Your task to perform on an android device: turn pop-ups off in chrome Image 0: 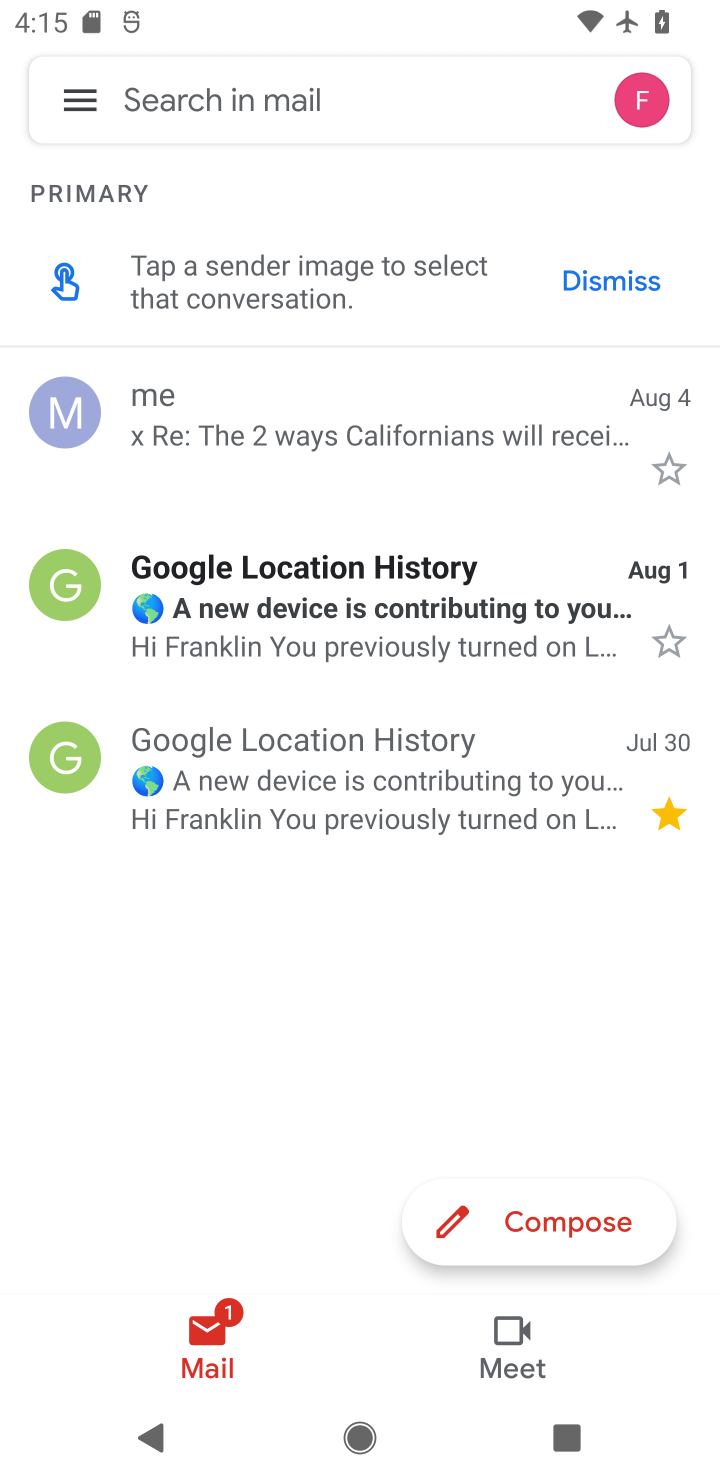
Step 0: press home button
Your task to perform on an android device: turn pop-ups off in chrome Image 1: 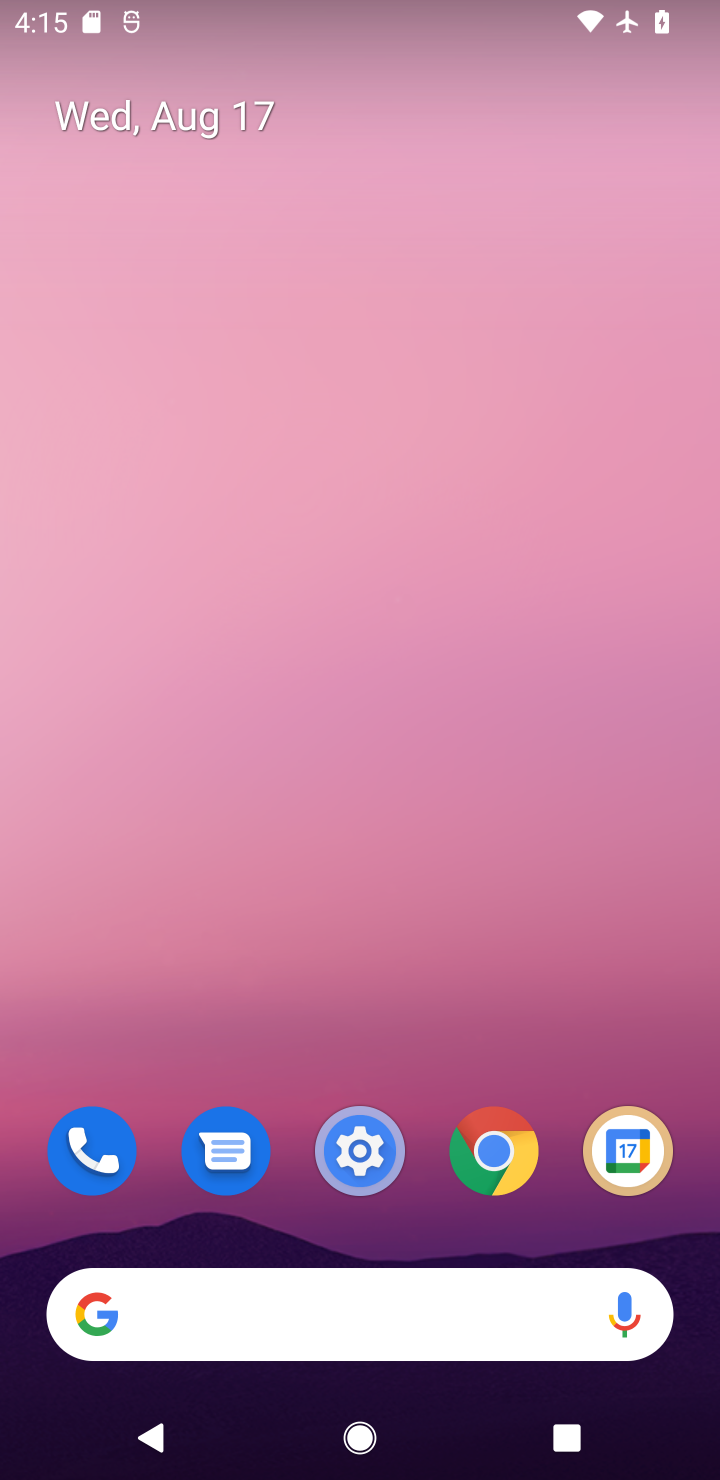
Step 1: drag from (512, 725) to (605, 53)
Your task to perform on an android device: turn pop-ups off in chrome Image 2: 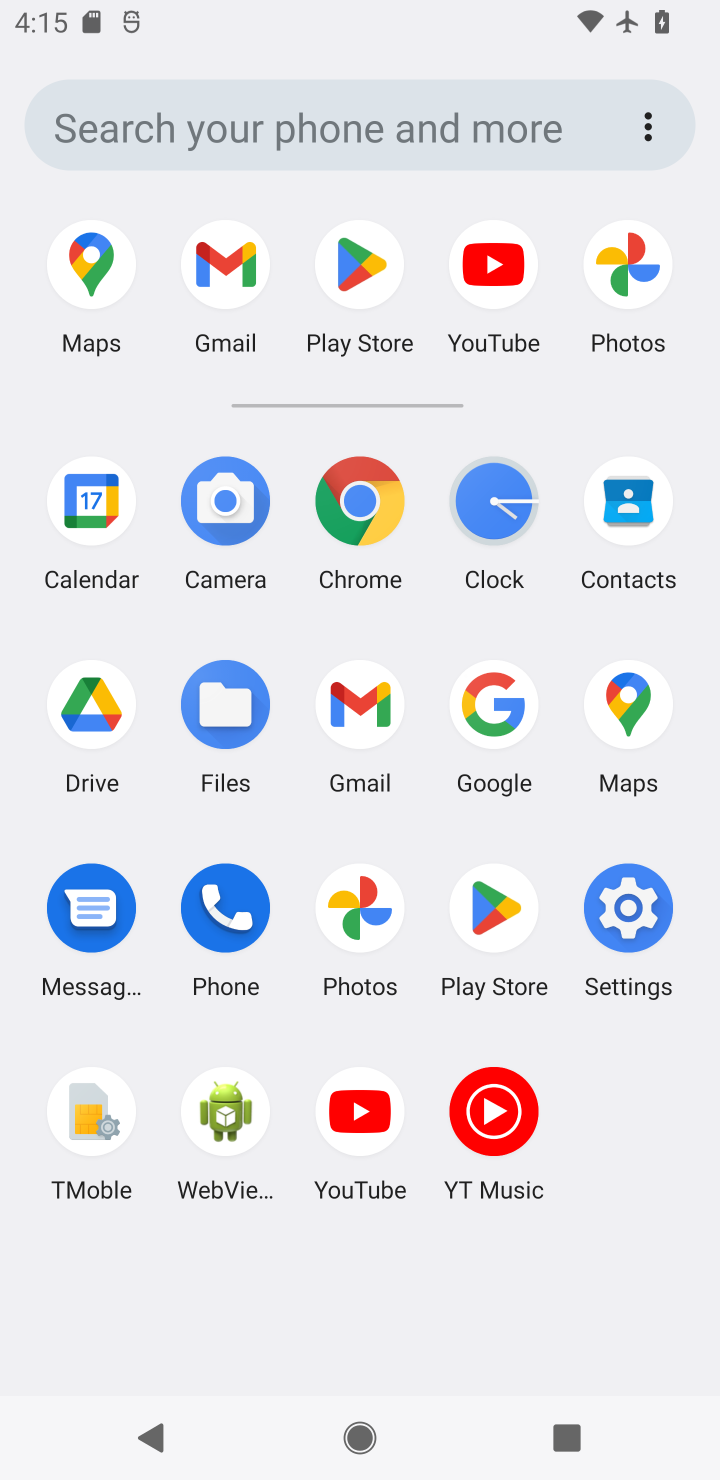
Step 2: click (380, 503)
Your task to perform on an android device: turn pop-ups off in chrome Image 3: 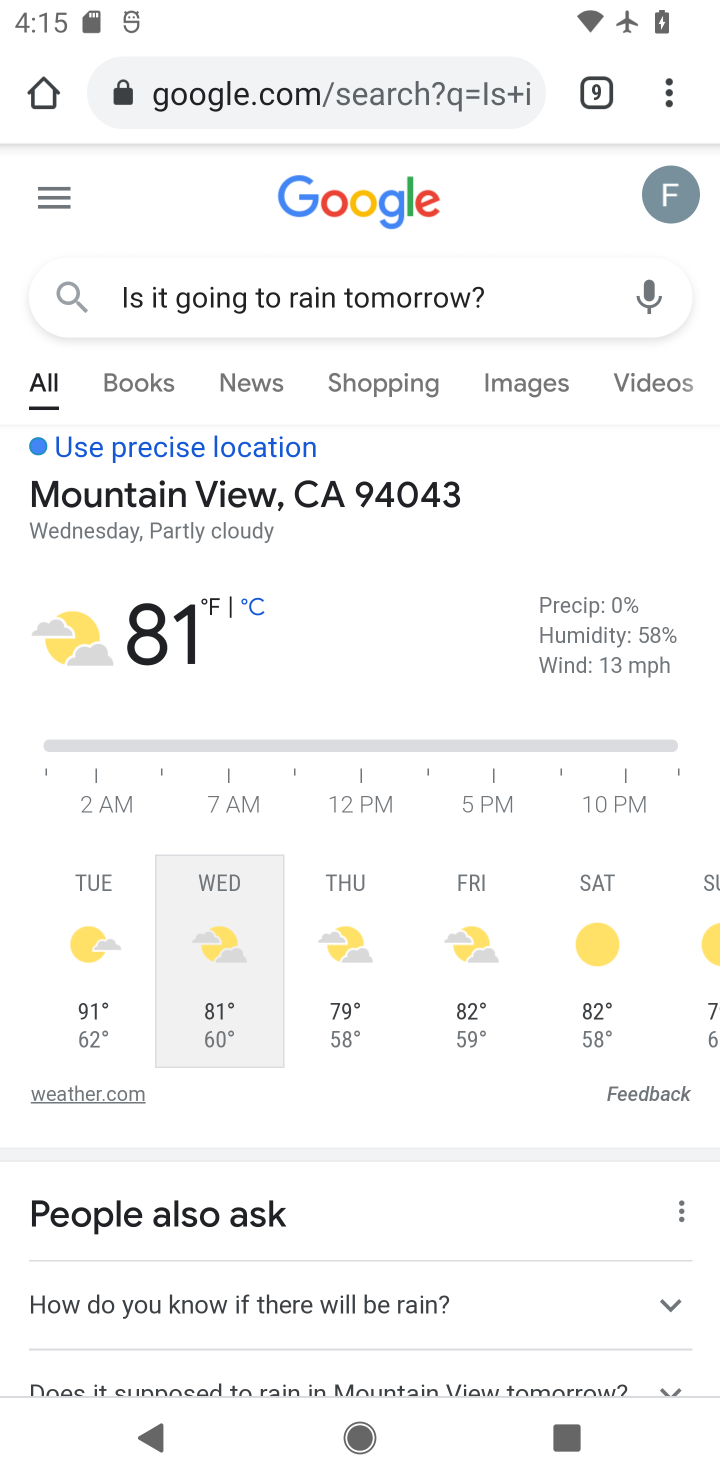
Step 3: click (672, 82)
Your task to perform on an android device: turn pop-ups off in chrome Image 4: 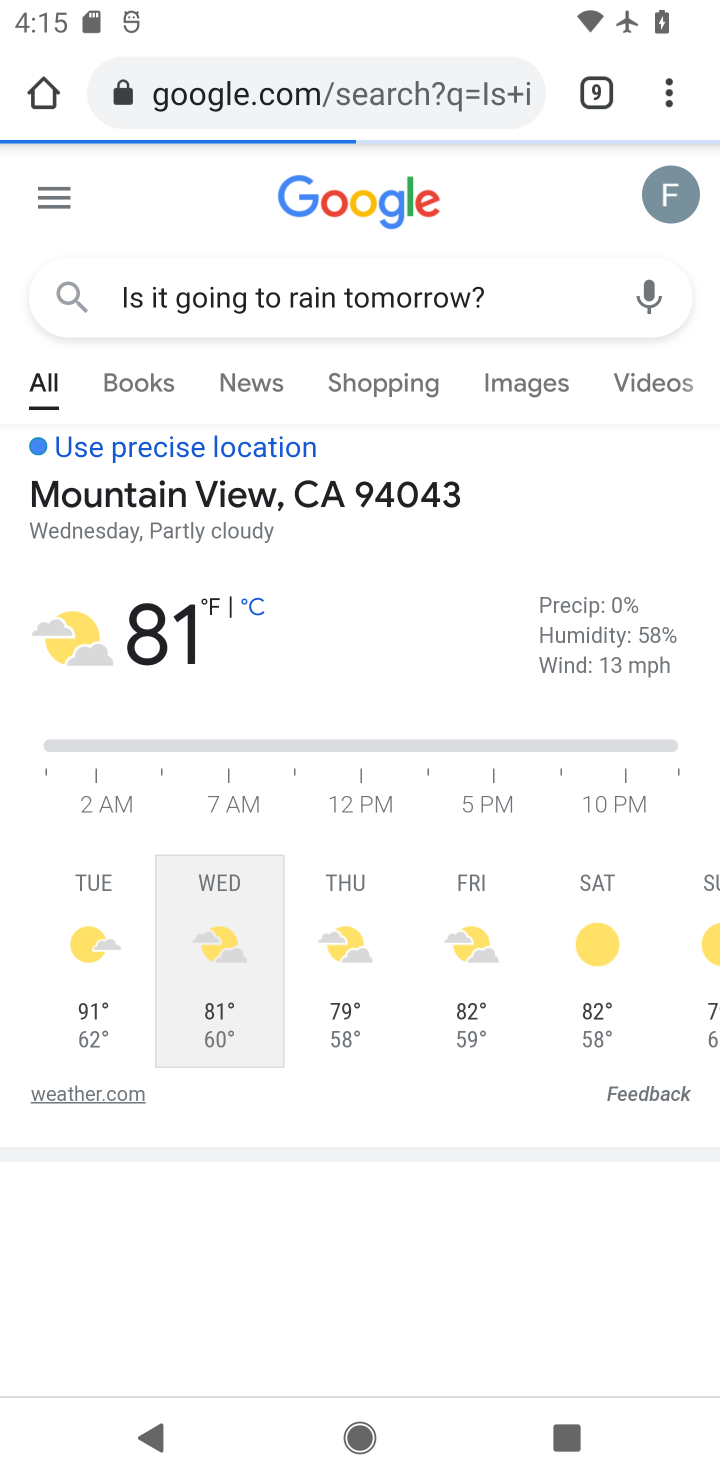
Step 4: click (660, 90)
Your task to perform on an android device: turn pop-ups off in chrome Image 5: 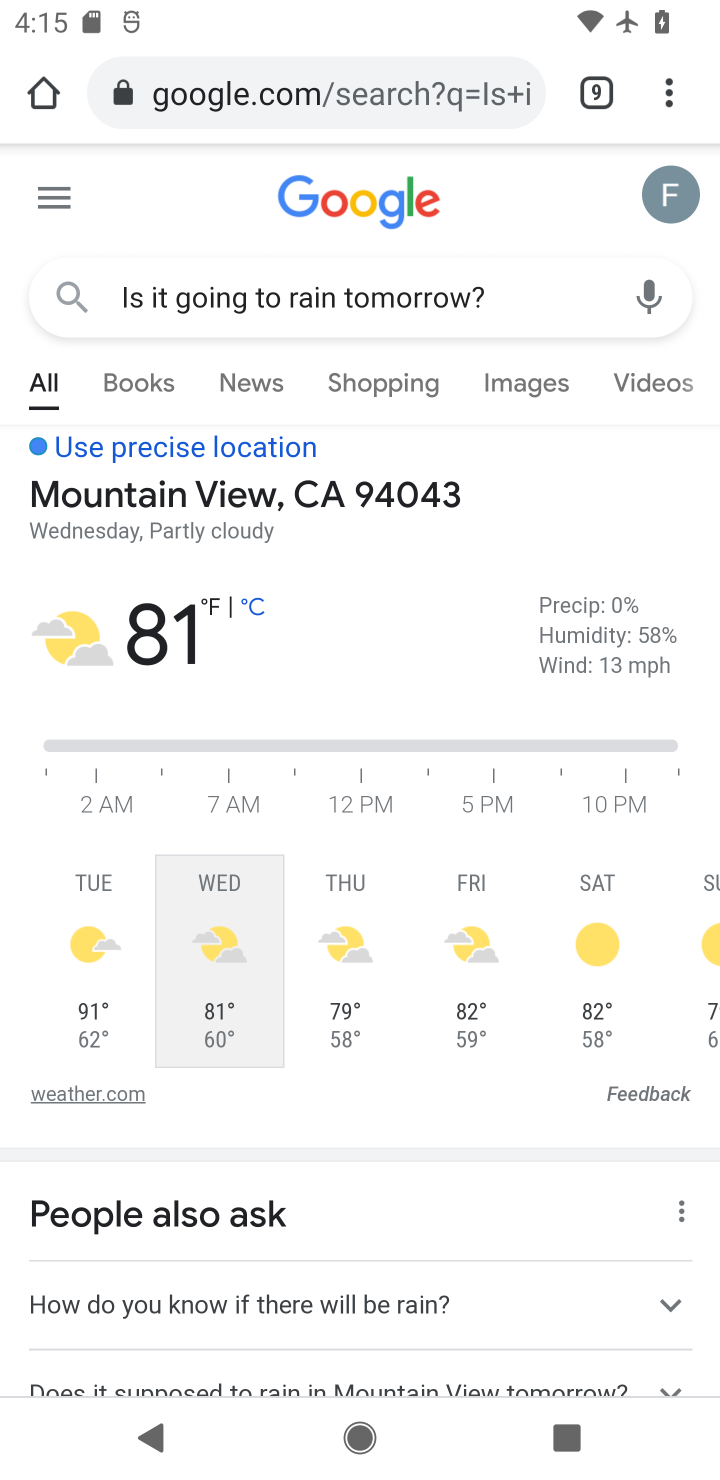
Step 5: click (665, 82)
Your task to perform on an android device: turn pop-ups off in chrome Image 6: 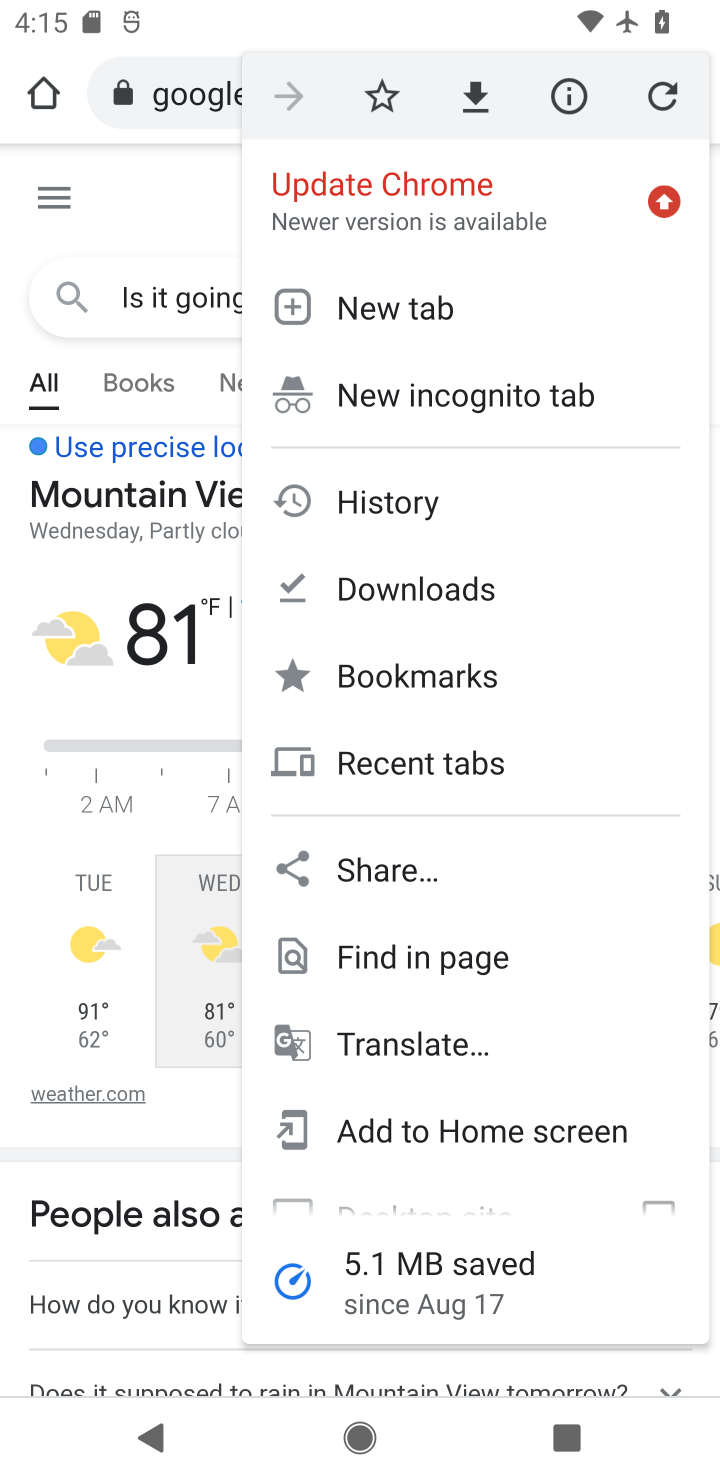
Step 6: drag from (489, 1047) to (571, 157)
Your task to perform on an android device: turn pop-ups off in chrome Image 7: 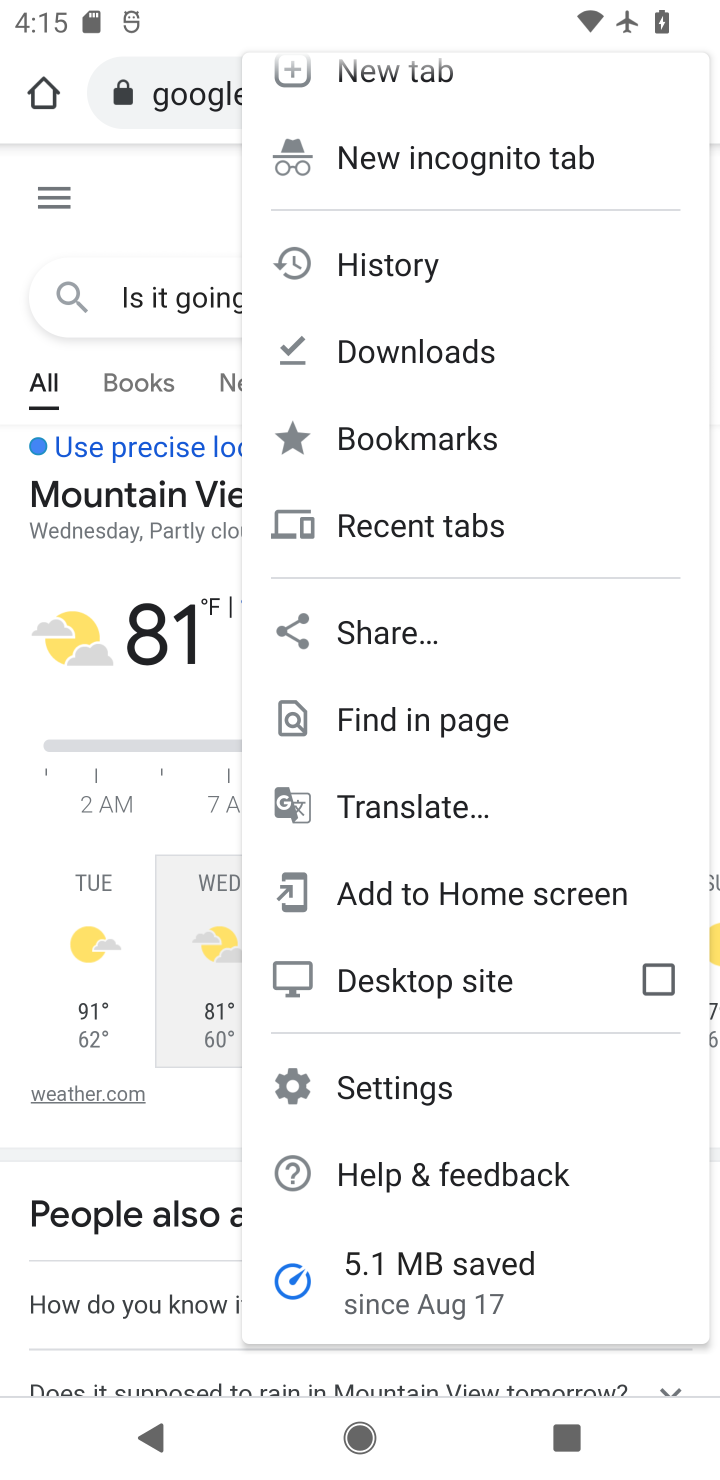
Step 7: click (415, 1090)
Your task to perform on an android device: turn pop-ups off in chrome Image 8: 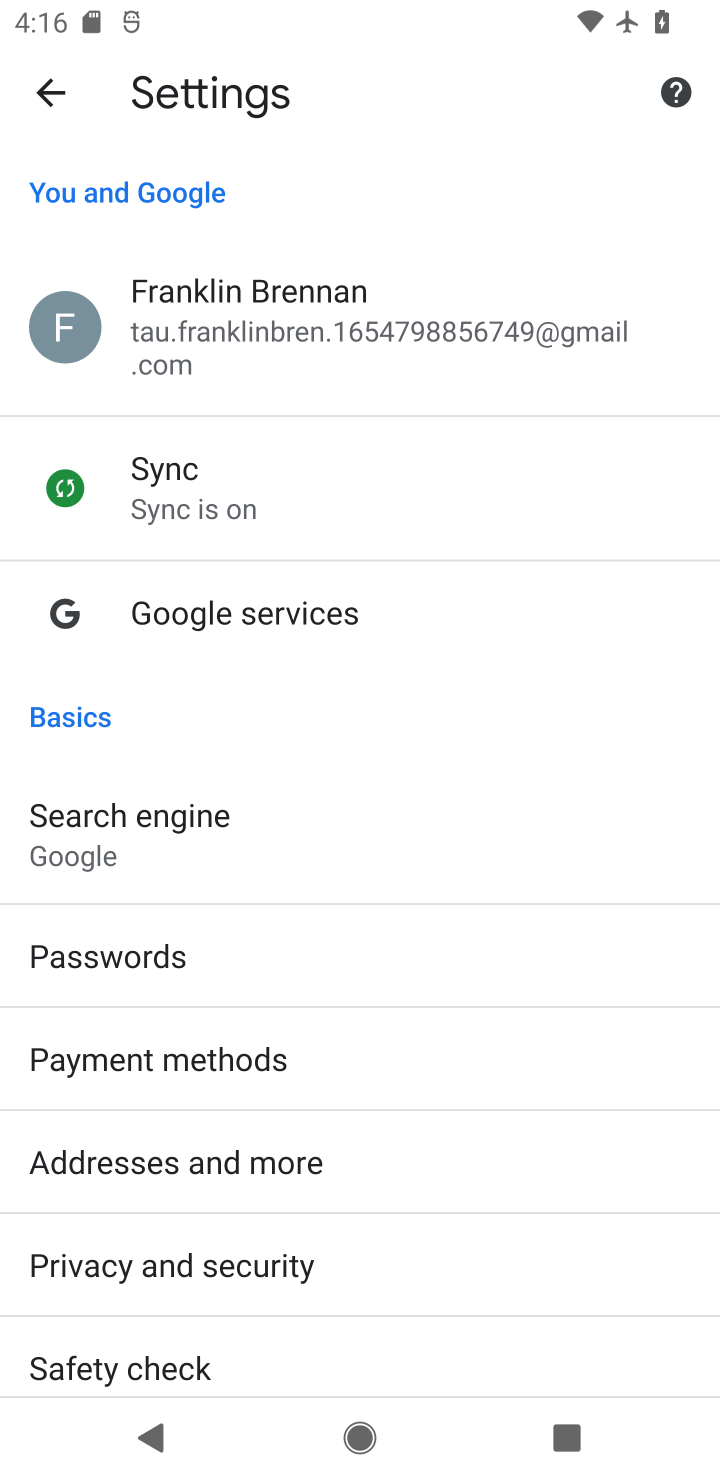
Step 8: drag from (340, 1249) to (568, 204)
Your task to perform on an android device: turn pop-ups off in chrome Image 9: 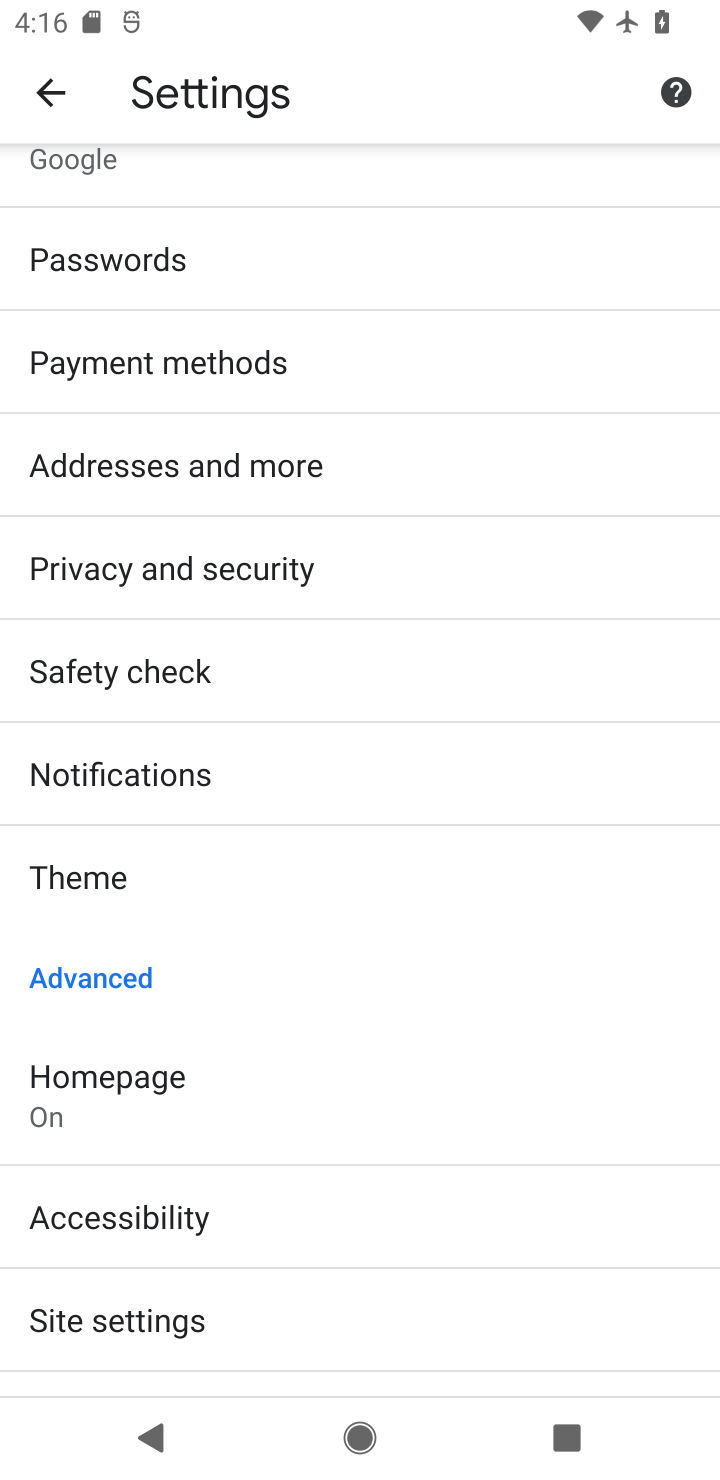
Step 9: click (237, 1297)
Your task to perform on an android device: turn pop-ups off in chrome Image 10: 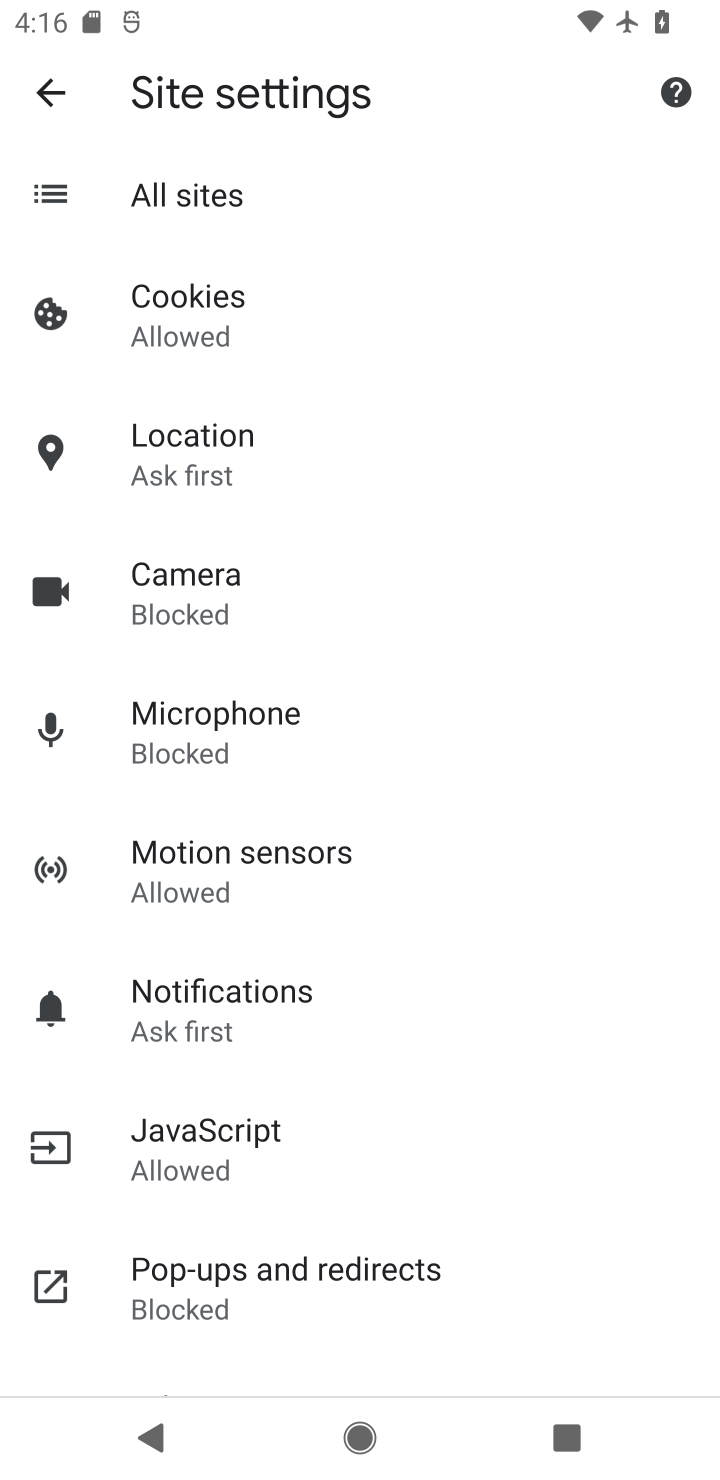
Step 10: click (272, 1261)
Your task to perform on an android device: turn pop-ups off in chrome Image 11: 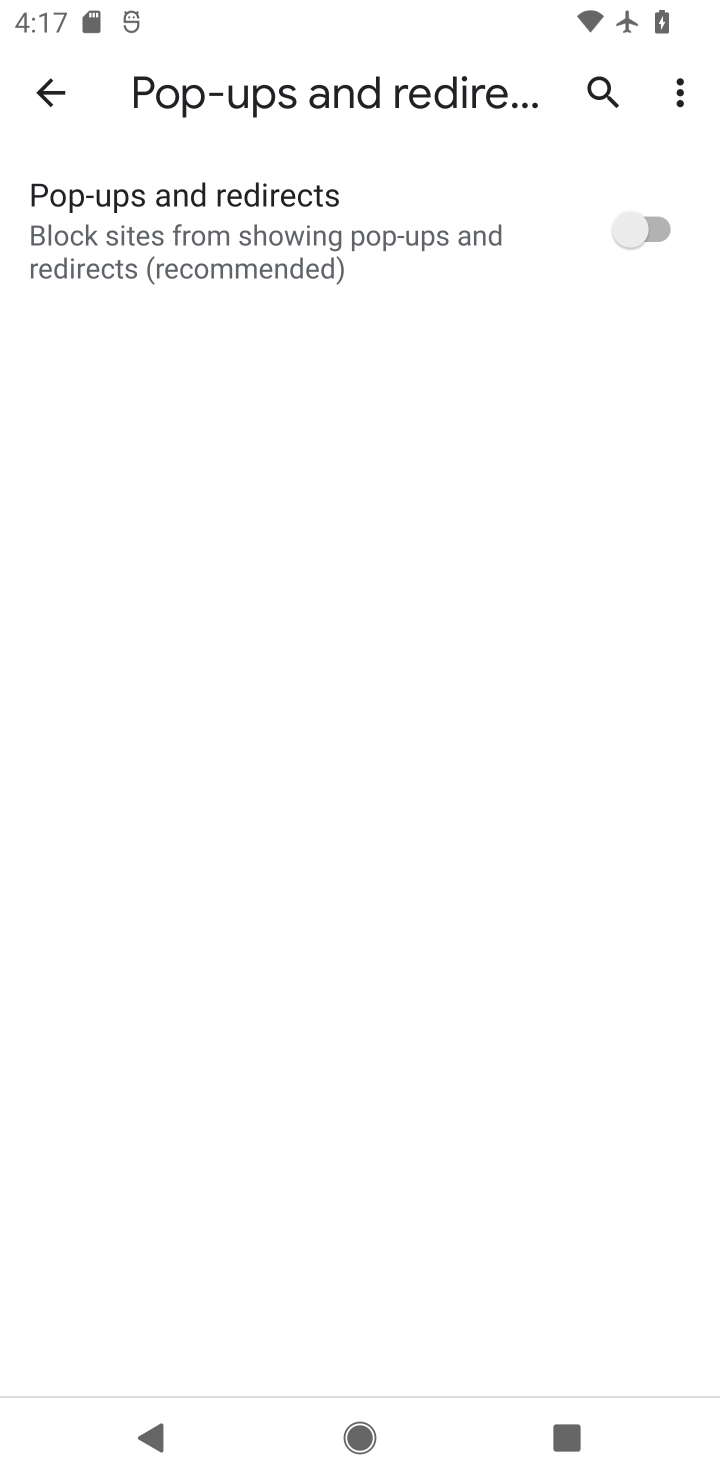
Step 11: task complete